Your task to perform on an android device: move an email to a new category in the gmail app Image 0: 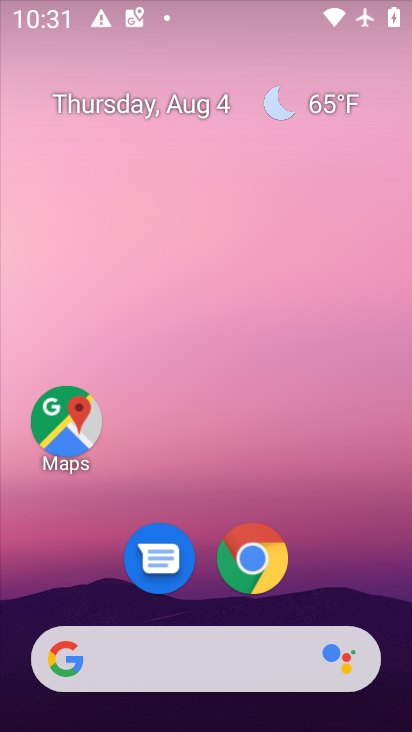
Step 0: click (370, 114)
Your task to perform on an android device: move an email to a new category in the gmail app Image 1: 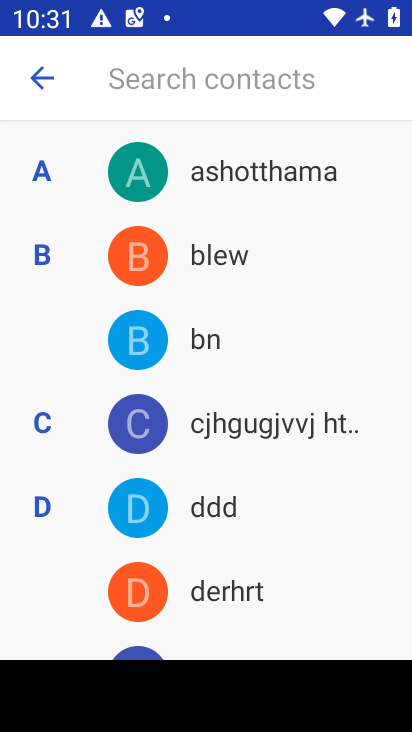
Step 1: press home button
Your task to perform on an android device: move an email to a new category in the gmail app Image 2: 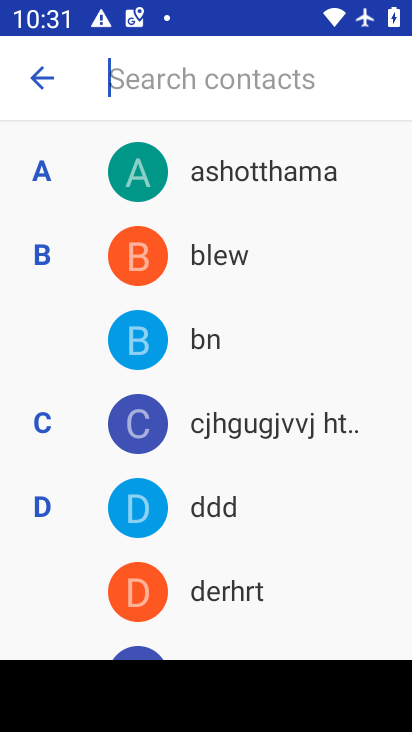
Step 2: press home button
Your task to perform on an android device: move an email to a new category in the gmail app Image 3: 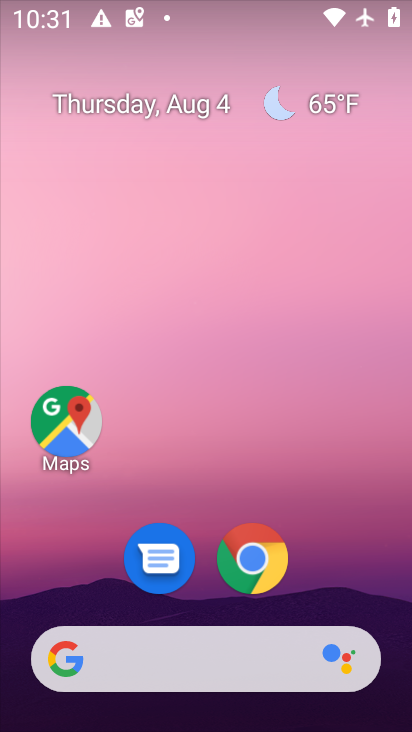
Step 3: drag from (324, 531) to (305, 160)
Your task to perform on an android device: move an email to a new category in the gmail app Image 4: 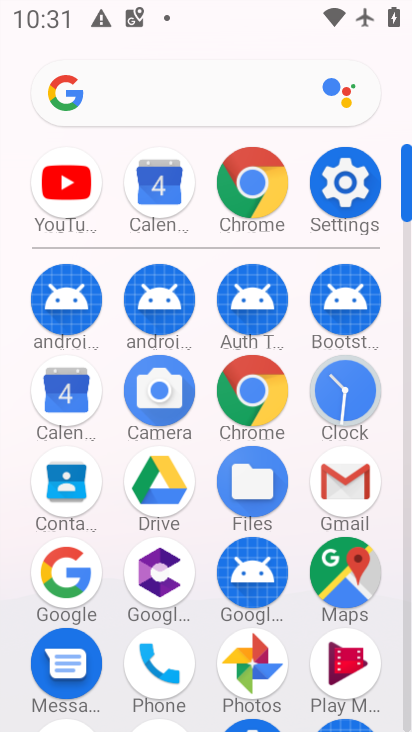
Step 4: click (342, 488)
Your task to perform on an android device: move an email to a new category in the gmail app Image 5: 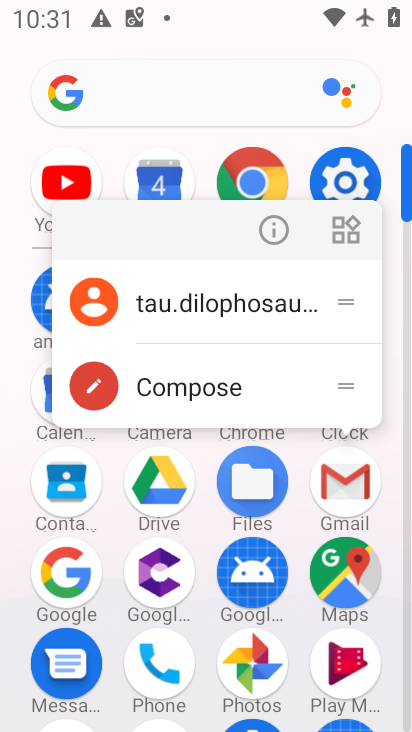
Step 5: click (342, 486)
Your task to perform on an android device: move an email to a new category in the gmail app Image 6: 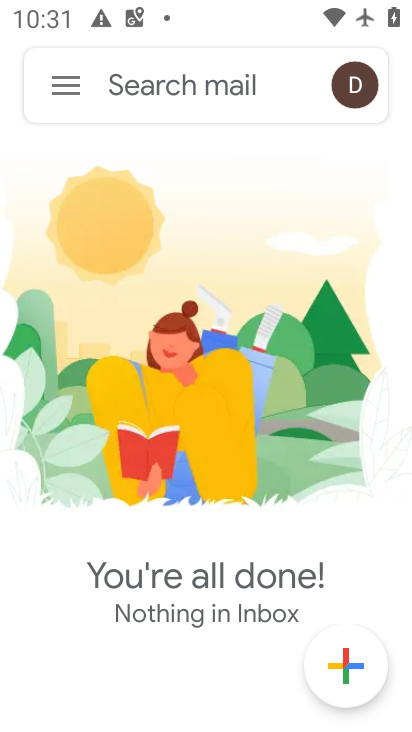
Step 6: click (66, 88)
Your task to perform on an android device: move an email to a new category in the gmail app Image 7: 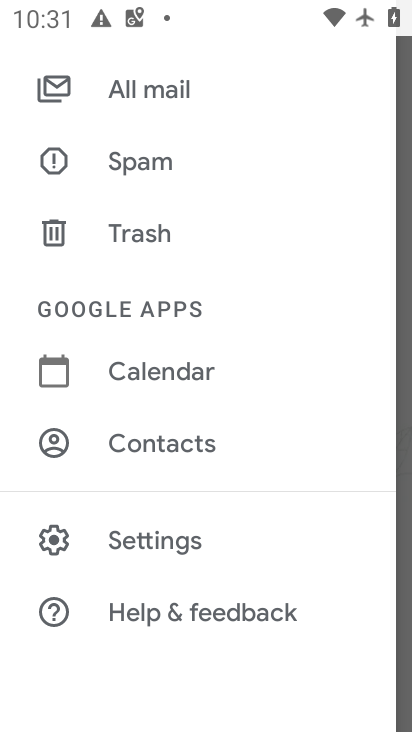
Step 7: click (166, 96)
Your task to perform on an android device: move an email to a new category in the gmail app Image 8: 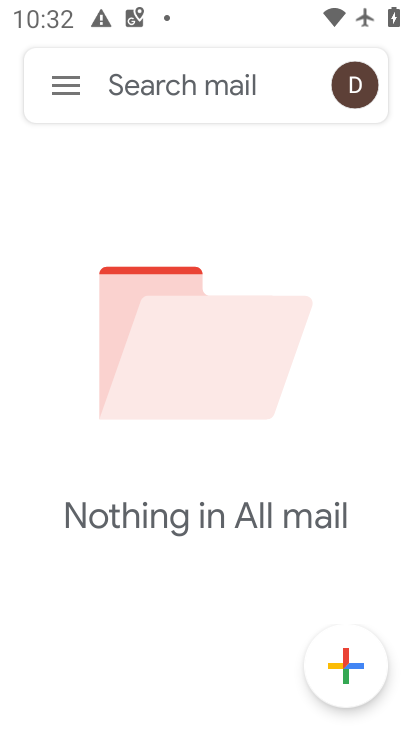
Step 8: task complete